Your task to perform on an android device: Look up the best rated hair dryer on Walmart. Image 0: 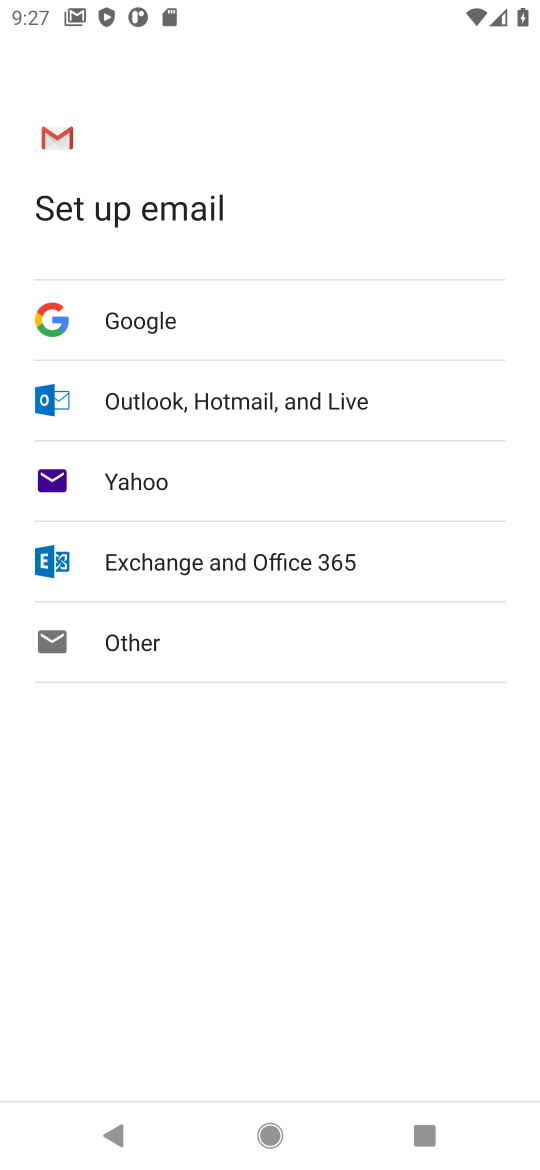
Step 0: press home button
Your task to perform on an android device: Look up the best rated hair dryer on Walmart. Image 1: 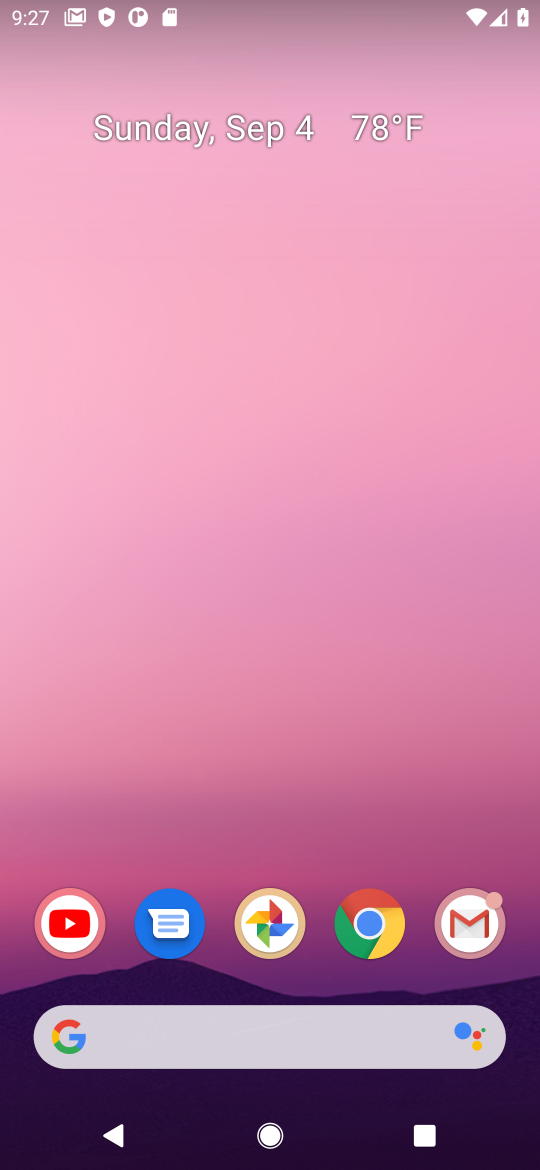
Step 1: click (372, 911)
Your task to perform on an android device: Look up the best rated hair dryer on Walmart. Image 2: 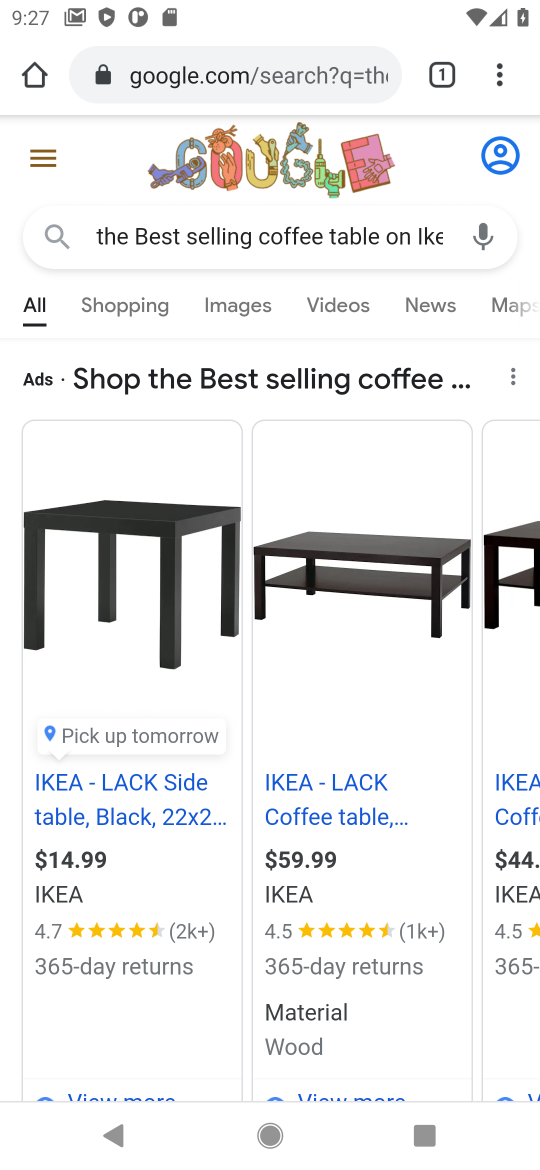
Step 2: click (182, 92)
Your task to perform on an android device: Look up the best rated hair dryer on Walmart. Image 3: 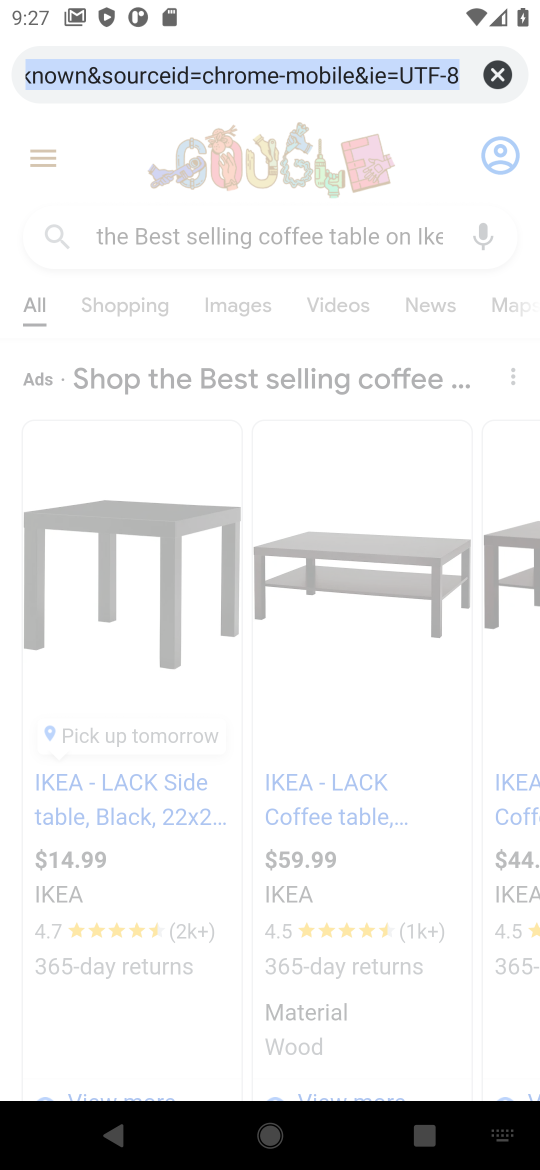
Step 3: click (496, 75)
Your task to perform on an android device: Look up the best rated hair dryer on Walmart. Image 4: 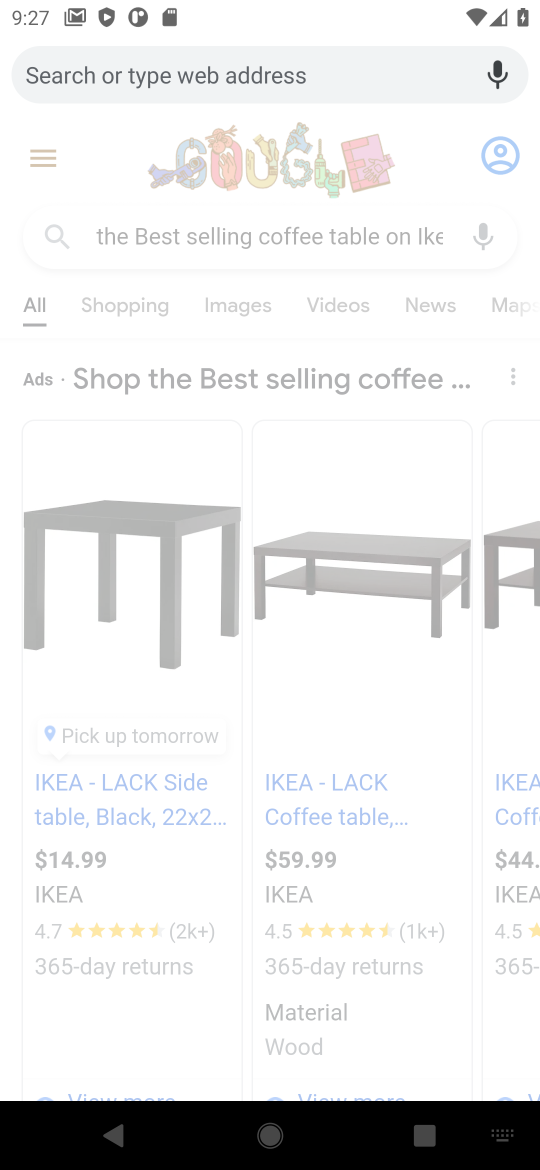
Step 4: type " the best rated hair dryer on Walmart the best rated hair dryer on Walmart"
Your task to perform on an android device: Look up the best rated hair dryer on Walmart. Image 5: 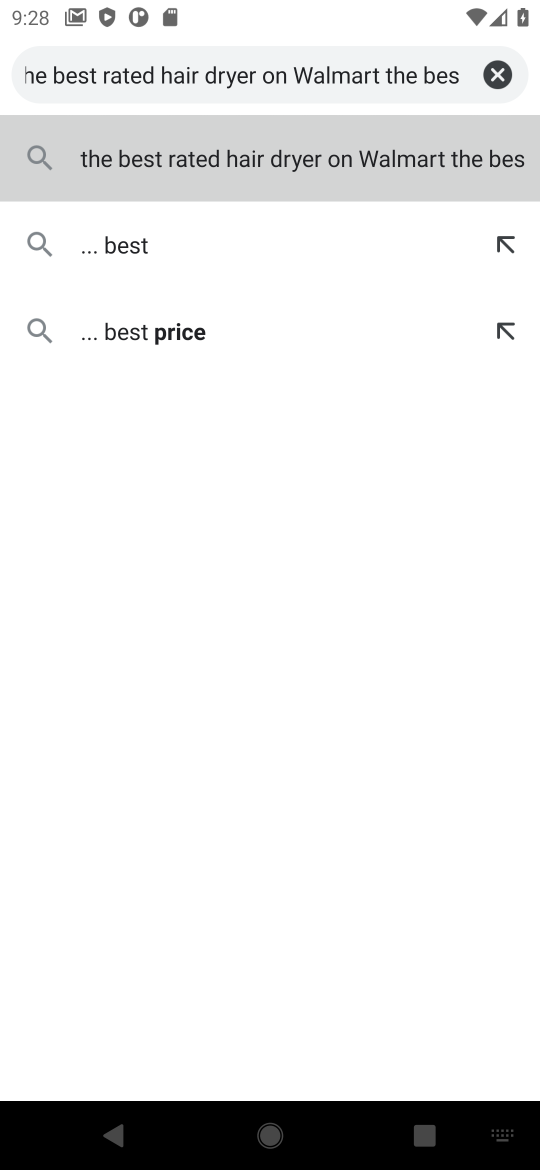
Step 5: click (333, 139)
Your task to perform on an android device: Look up the best rated hair dryer on Walmart. Image 6: 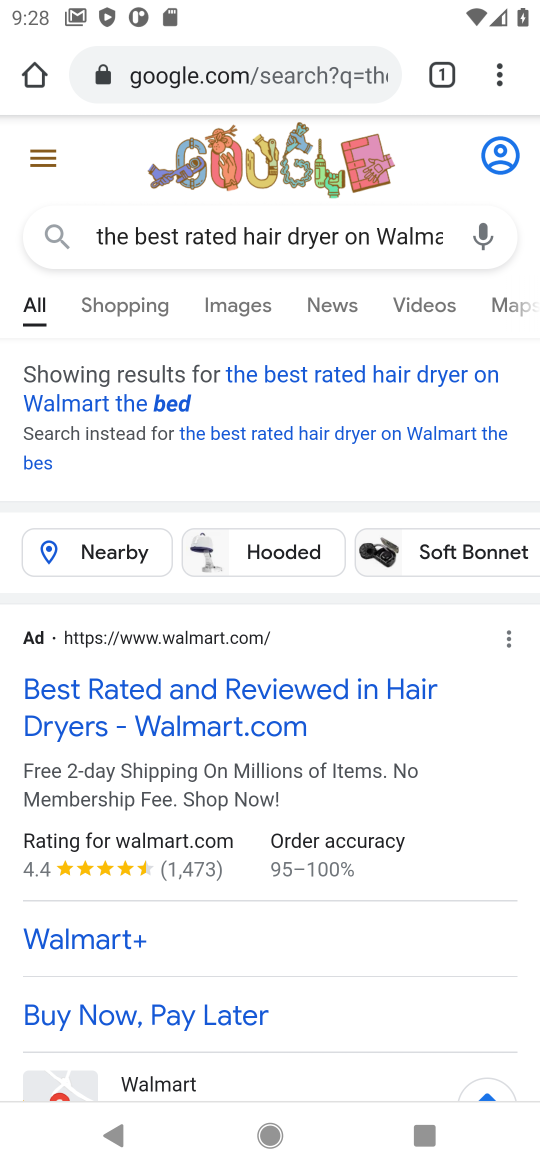
Step 6: click (409, 171)
Your task to perform on an android device: Look up the best rated hair dryer on Walmart. Image 7: 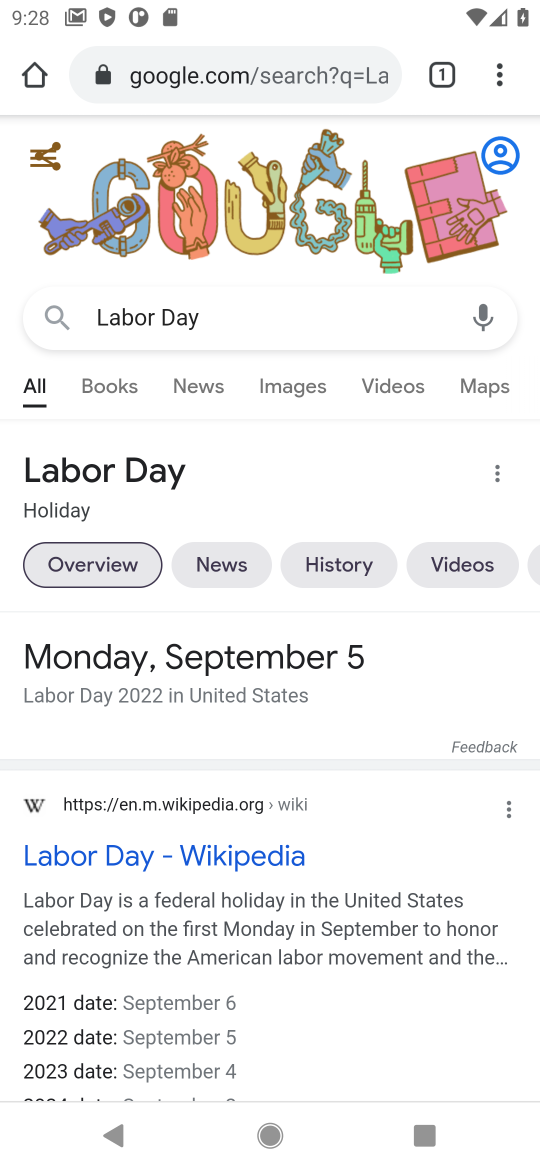
Step 7: task complete